Your task to perform on an android device: open a bookmark in the chrome app Image 0: 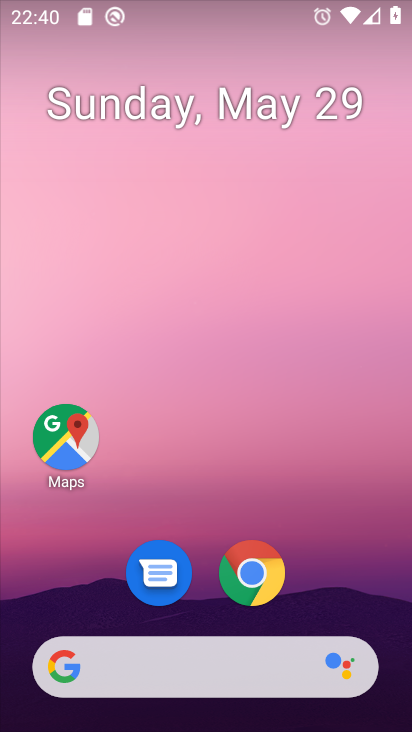
Step 0: click (251, 577)
Your task to perform on an android device: open a bookmark in the chrome app Image 1: 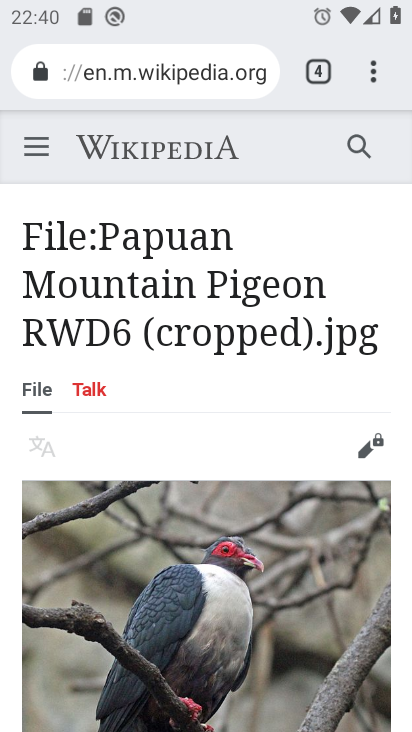
Step 1: click (369, 66)
Your task to perform on an android device: open a bookmark in the chrome app Image 2: 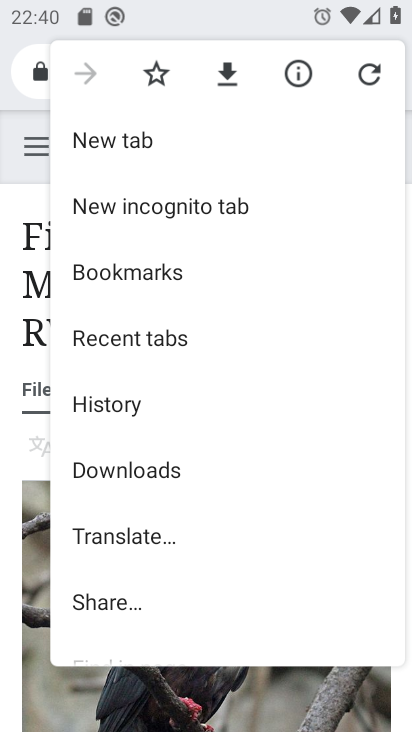
Step 2: click (192, 268)
Your task to perform on an android device: open a bookmark in the chrome app Image 3: 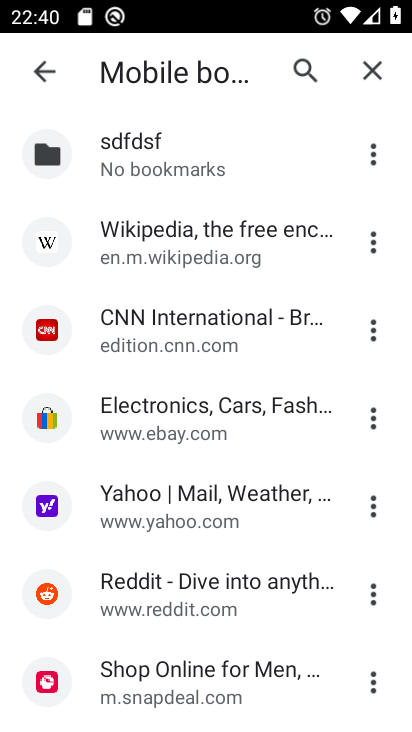
Step 3: click (260, 238)
Your task to perform on an android device: open a bookmark in the chrome app Image 4: 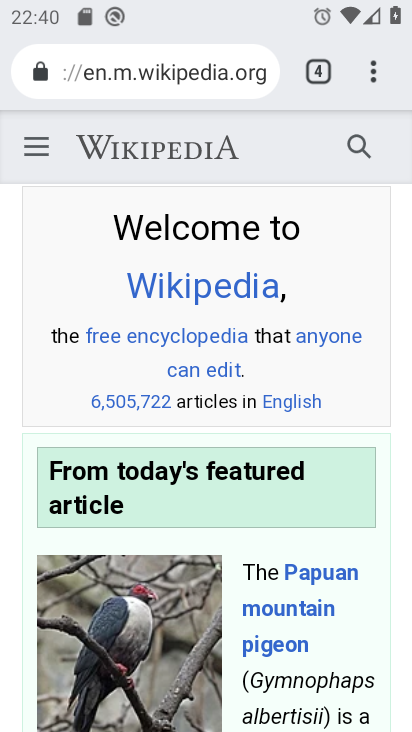
Step 4: task complete